Your task to perform on an android device: turn on airplane mode Image 0: 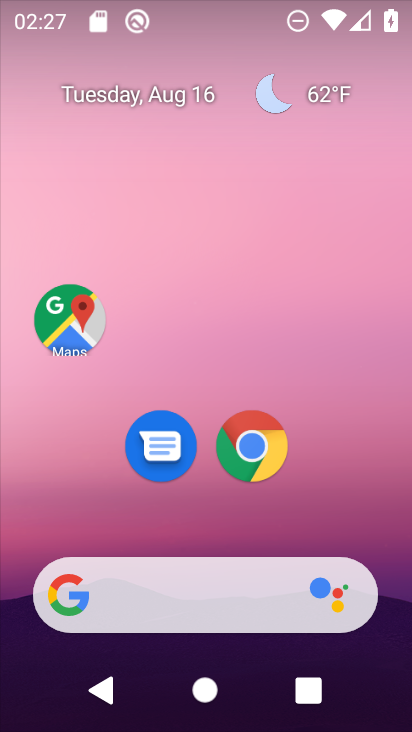
Step 0: drag from (196, 532) to (235, 27)
Your task to perform on an android device: turn on airplane mode Image 1: 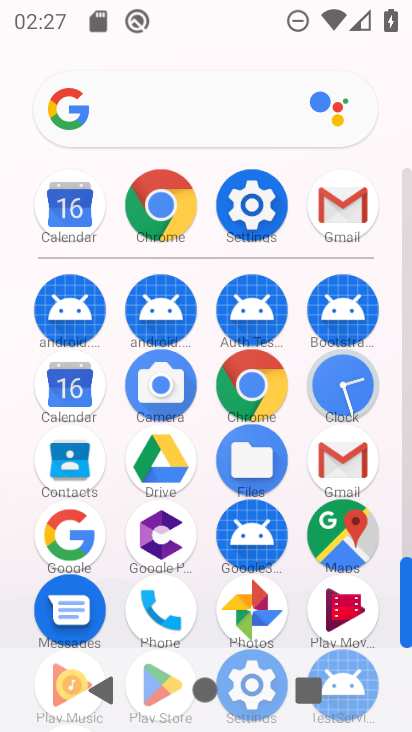
Step 1: click (250, 199)
Your task to perform on an android device: turn on airplane mode Image 2: 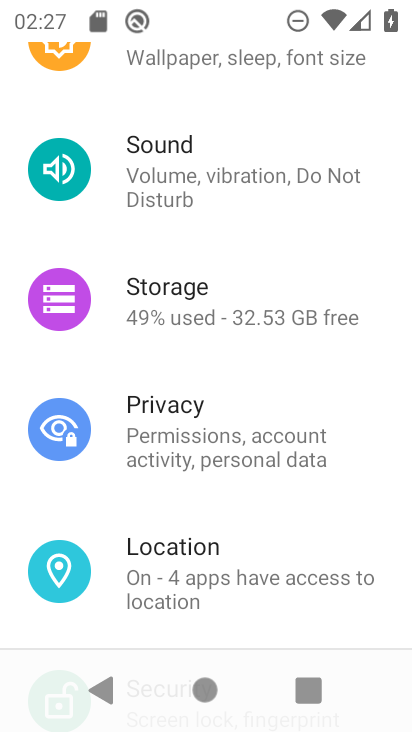
Step 2: drag from (258, 116) to (218, 617)
Your task to perform on an android device: turn on airplane mode Image 3: 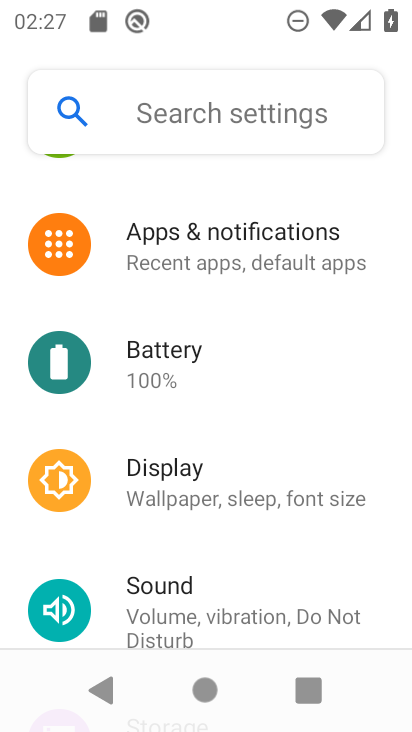
Step 3: drag from (110, 199) to (101, 636)
Your task to perform on an android device: turn on airplane mode Image 4: 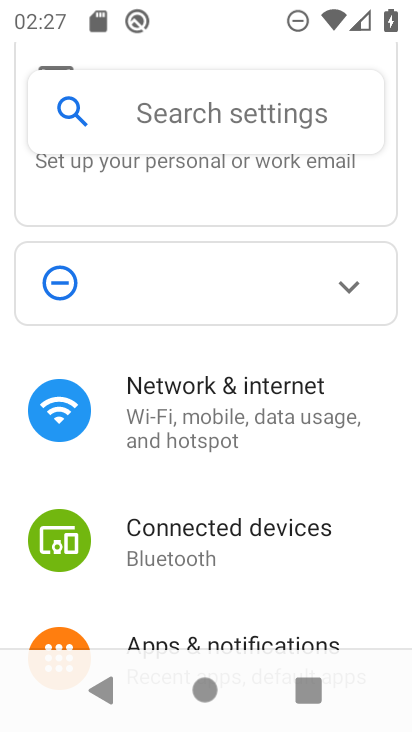
Step 4: click (196, 606)
Your task to perform on an android device: turn on airplane mode Image 5: 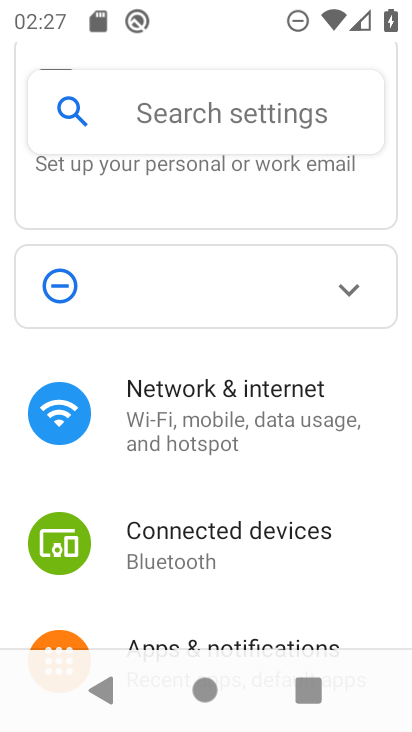
Step 5: click (212, 416)
Your task to perform on an android device: turn on airplane mode Image 6: 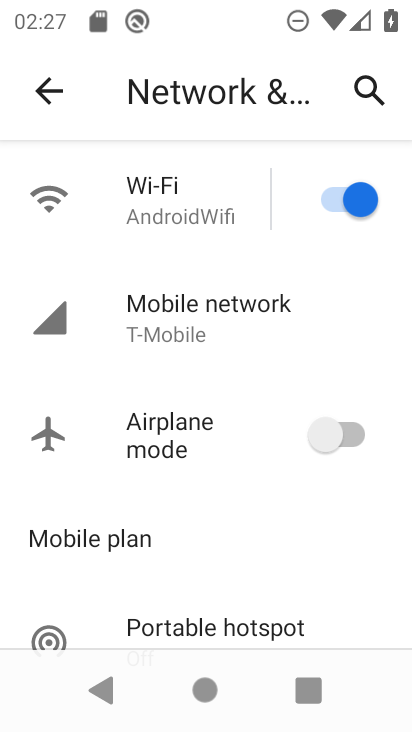
Step 6: click (342, 435)
Your task to perform on an android device: turn on airplane mode Image 7: 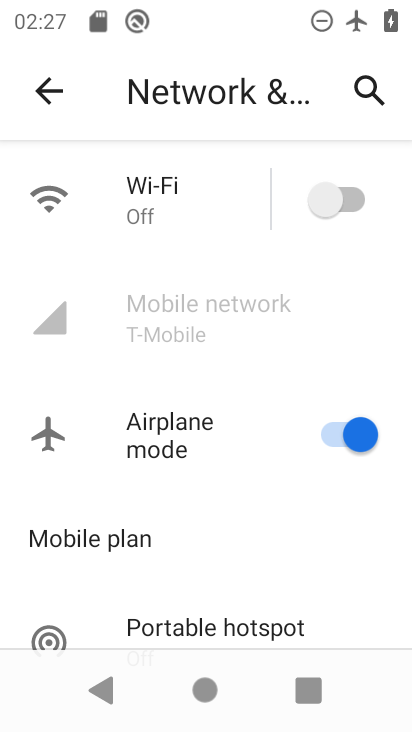
Step 7: task complete